Your task to perform on an android device: Do I have any events today? Image 0: 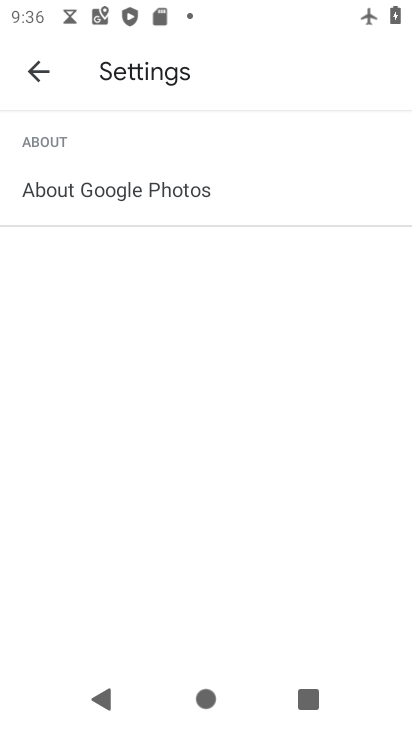
Step 0: press home button
Your task to perform on an android device: Do I have any events today? Image 1: 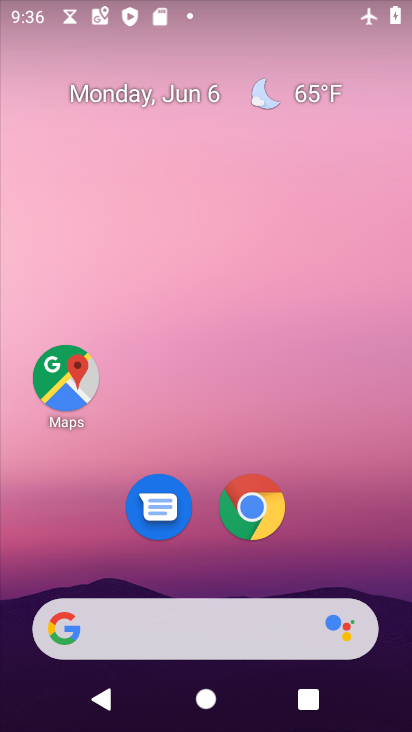
Step 1: drag from (296, 526) to (327, 217)
Your task to perform on an android device: Do I have any events today? Image 2: 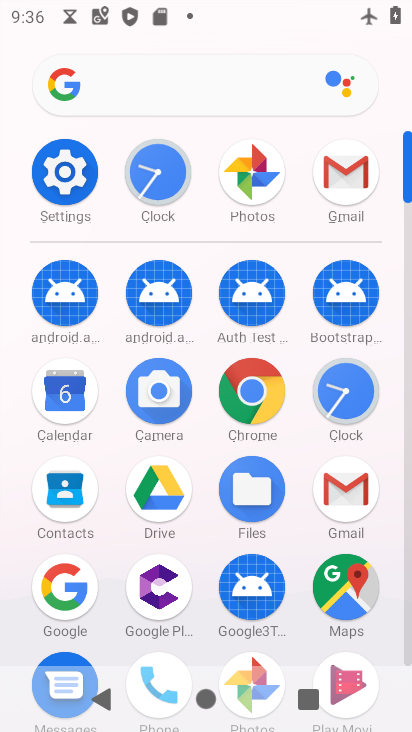
Step 2: click (62, 386)
Your task to perform on an android device: Do I have any events today? Image 3: 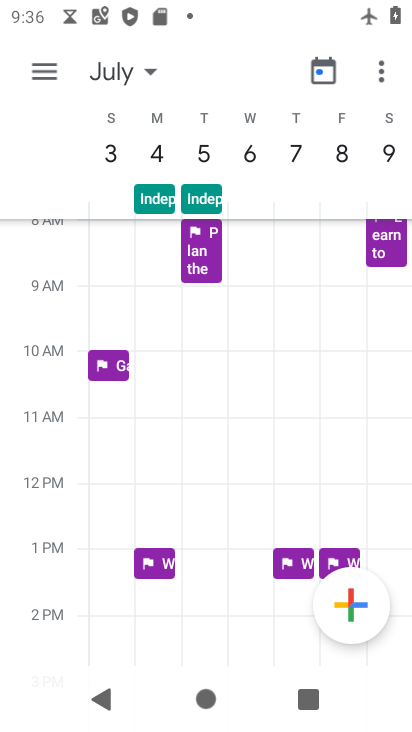
Step 3: drag from (297, 147) to (402, 150)
Your task to perform on an android device: Do I have any events today? Image 4: 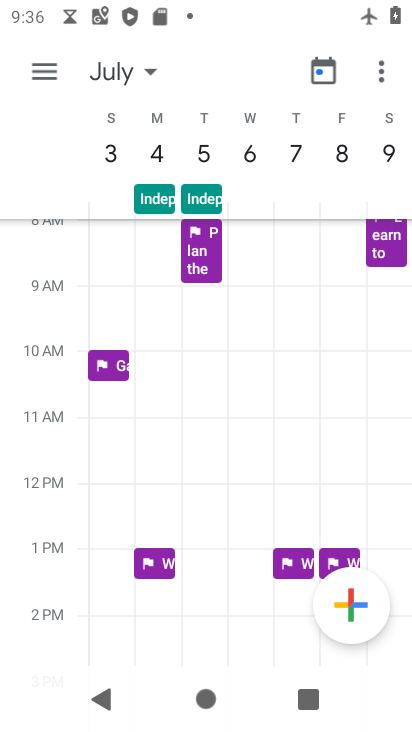
Step 4: drag from (118, 149) to (409, 180)
Your task to perform on an android device: Do I have any events today? Image 5: 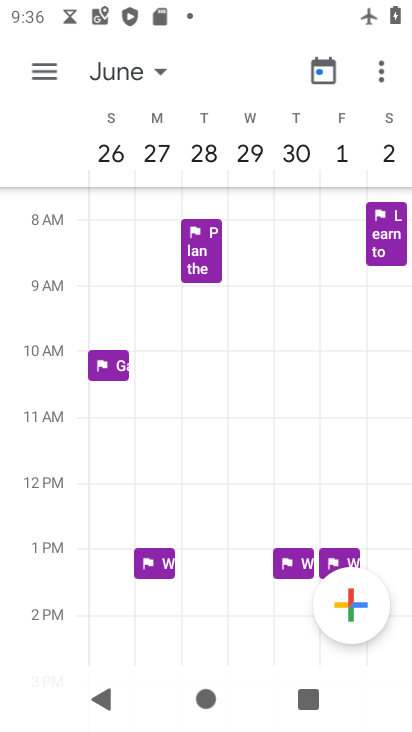
Step 5: click (50, 67)
Your task to perform on an android device: Do I have any events today? Image 6: 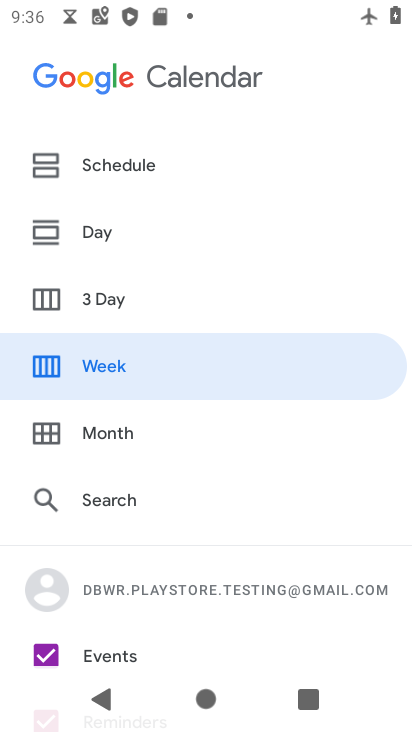
Step 6: click (115, 429)
Your task to perform on an android device: Do I have any events today? Image 7: 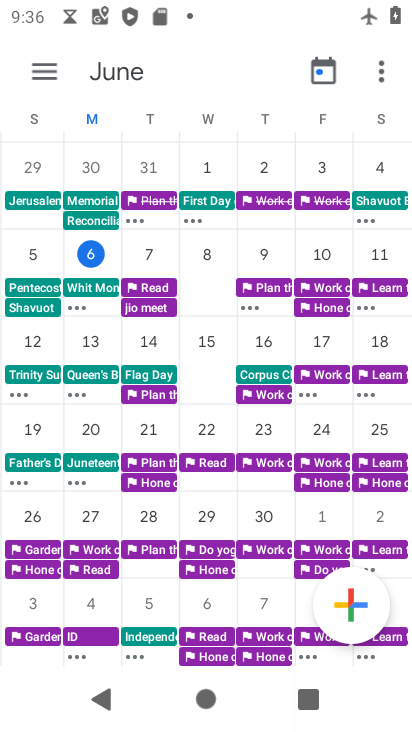
Step 7: click (151, 244)
Your task to perform on an android device: Do I have any events today? Image 8: 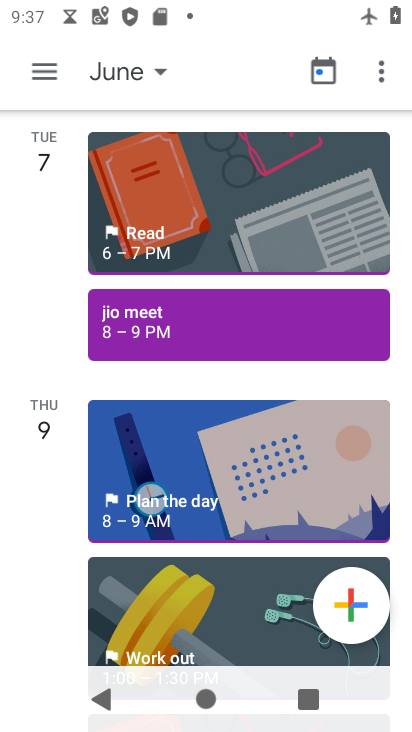
Step 8: task complete